Your task to perform on an android device: Go to notification settings Image 0: 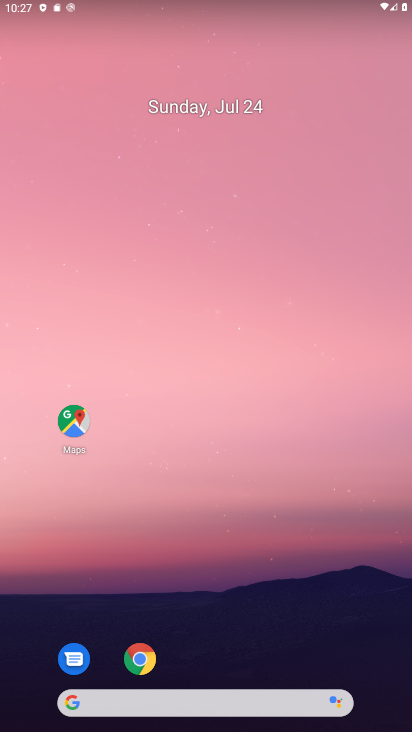
Step 0: press home button
Your task to perform on an android device: Go to notification settings Image 1: 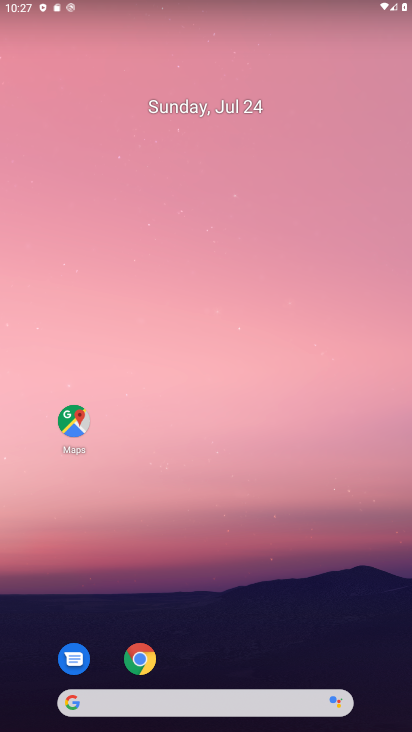
Step 1: drag from (310, 633) to (315, 214)
Your task to perform on an android device: Go to notification settings Image 2: 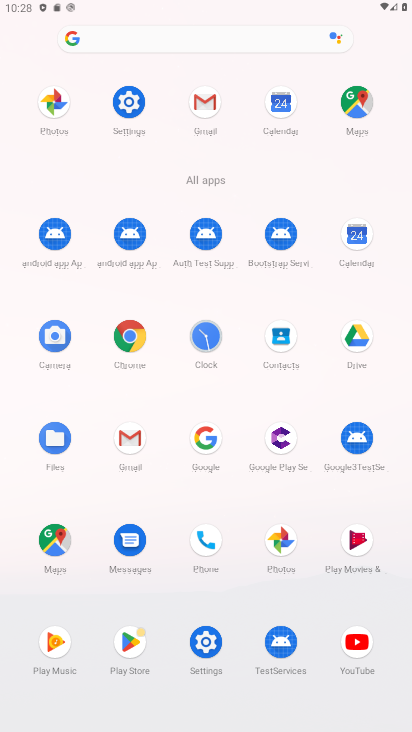
Step 2: click (223, 638)
Your task to perform on an android device: Go to notification settings Image 3: 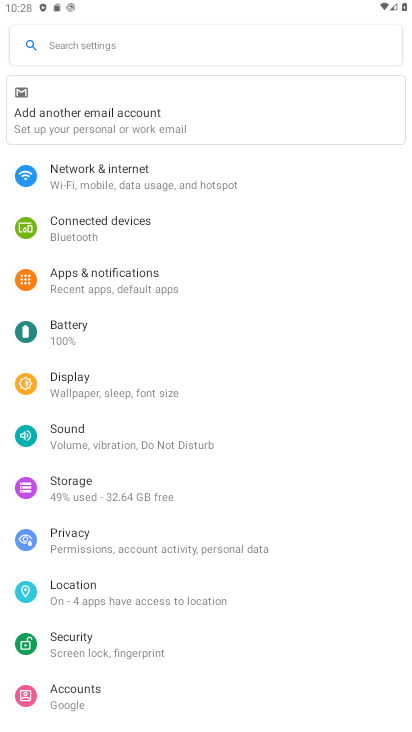
Step 3: click (154, 534)
Your task to perform on an android device: Go to notification settings Image 4: 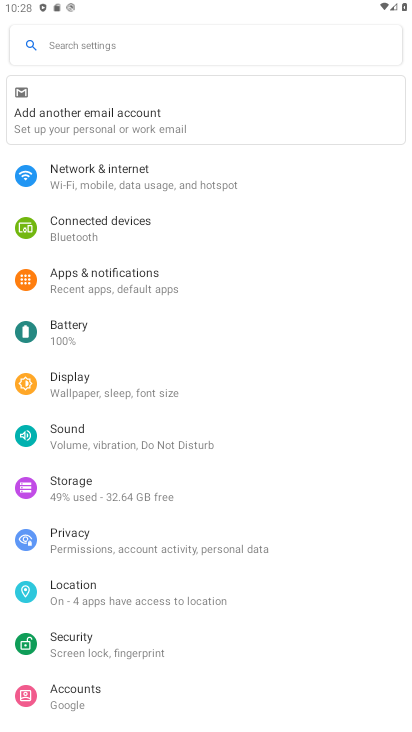
Step 4: click (97, 291)
Your task to perform on an android device: Go to notification settings Image 5: 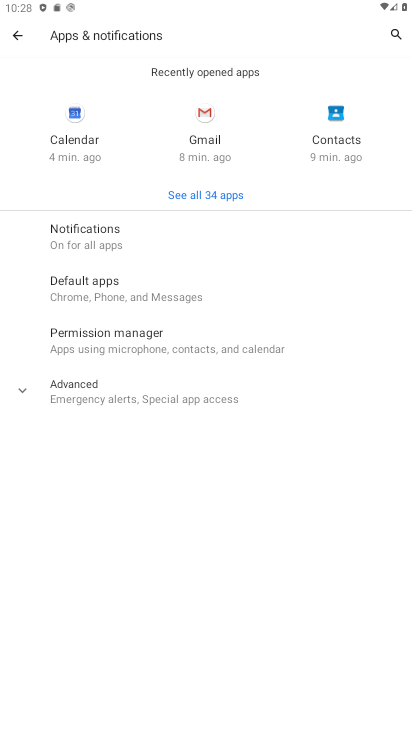
Step 5: click (108, 240)
Your task to perform on an android device: Go to notification settings Image 6: 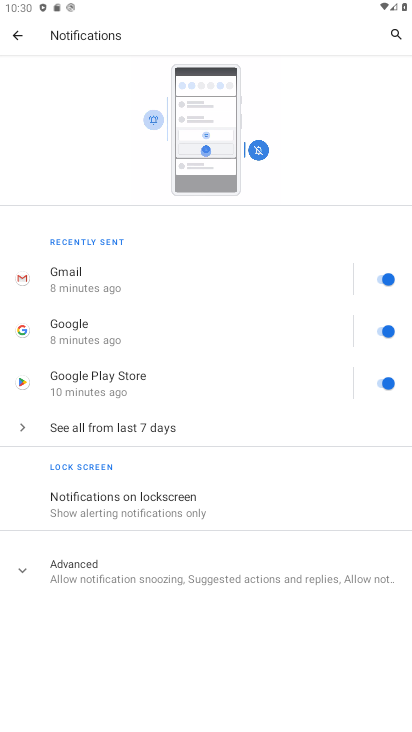
Step 6: task complete